Your task to perform on an android device: set default search engine in the chrome app Image 0: 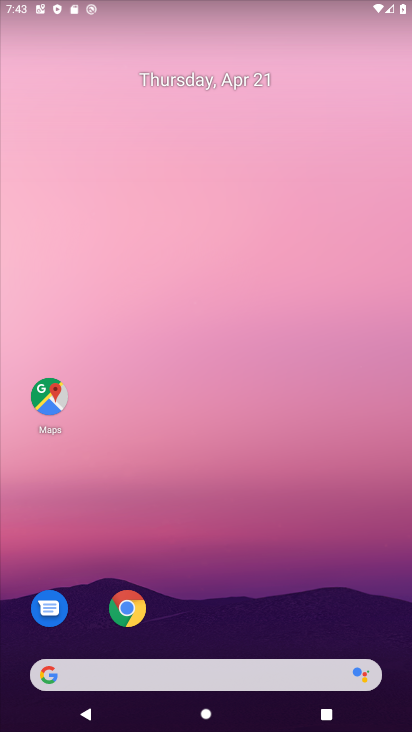
Step 0: drag from (220, 646) to (249, 341)
Your task to perform on an android device: set default search engine in the chrome app Image 1: 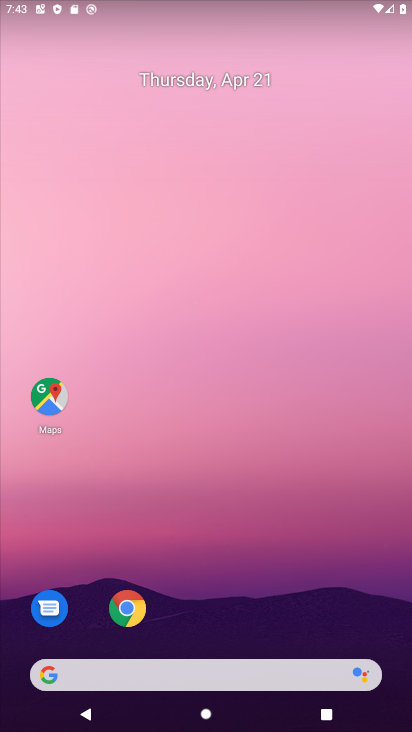
Step 1: click (135, 609)
Your task to perform on an android device: set default search engine in the chrome app Image 2: 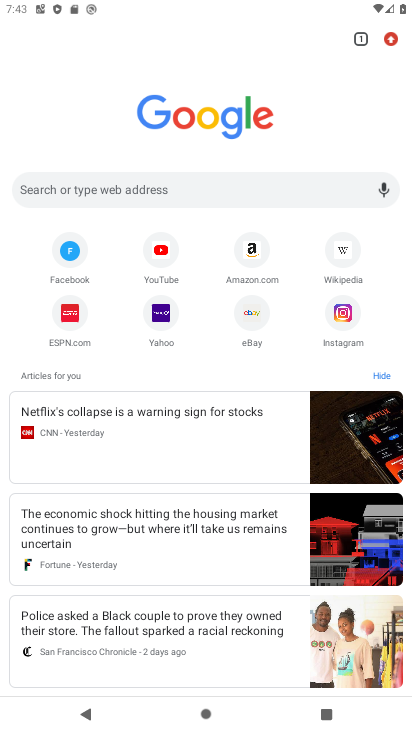
Step 2: click (393, 33)
Your task to perform on an android device: set default search engine in the chrome app Image 3: 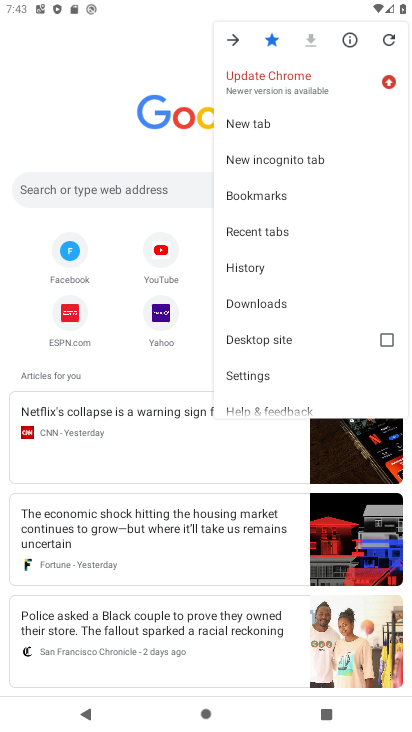
Step 3: click (261, 375)
Your task to perform on an android device: set default search engine in the chrome app Image 4: 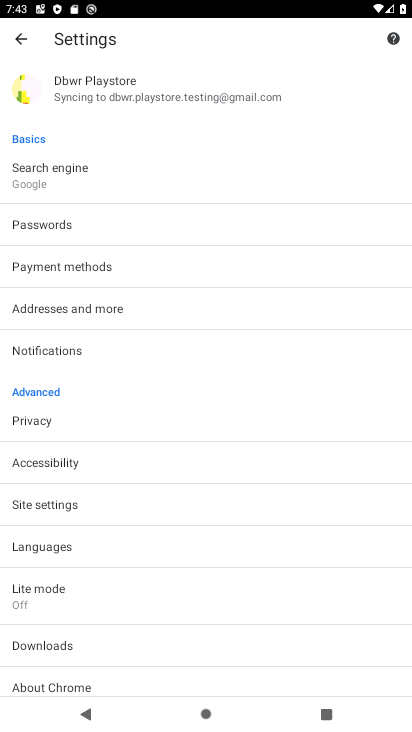
Step 4: click (54, 192)
Your task to perform on an android device: set default search engine in the chrome app Image 5: 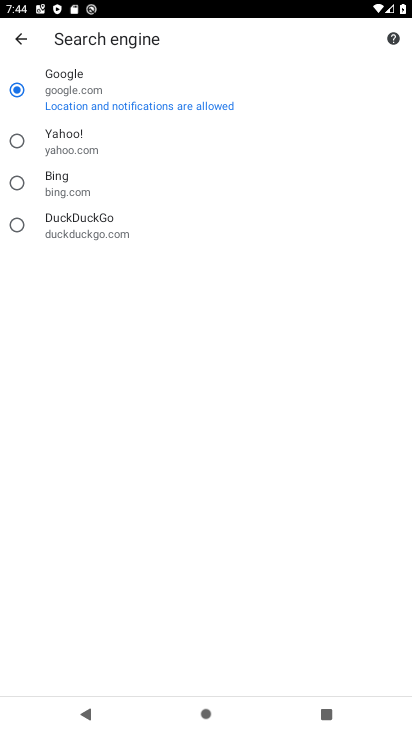
Step 5: task complete